Your task to perform on an android device: Open the calendar and show me this week's events? Image 0: 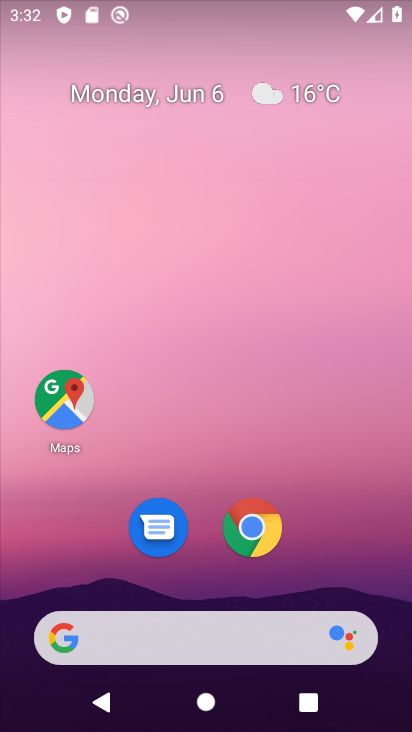
Step 0: click (123, 95)
Your task to perform on an android device: Open the calendar and show me this week's events? Image 1: 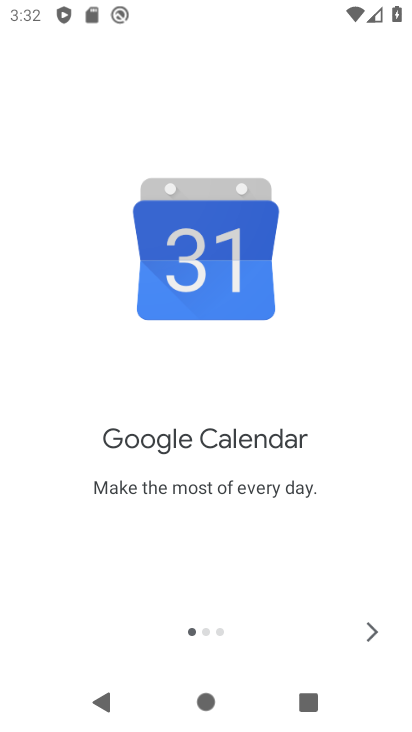
Step 1: click (371, 635)
Your task to perform on an android device: Open the calendar and show me this week's events? Image 2: 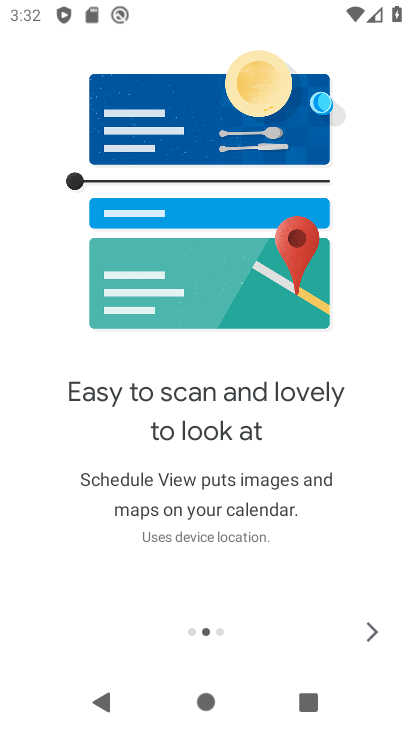
Step 2: click (371, 635)
Your task to perform on an android device: Open the calendar and show me this week's events? Image 3: 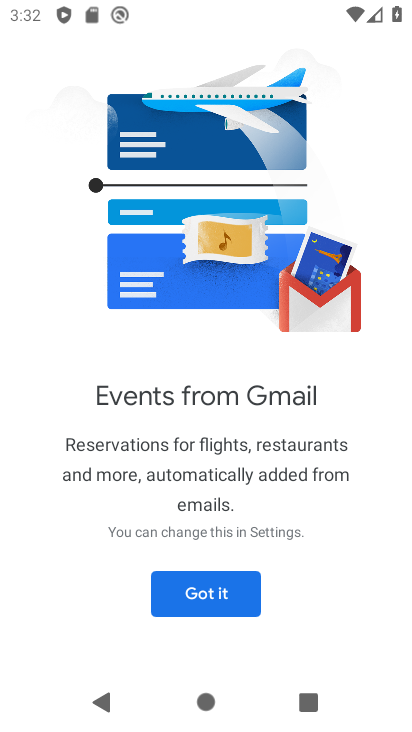
Step 3: click (218, 590)
Your task to perform on an android device: Open the calendar and show me this week's events? Image 4: 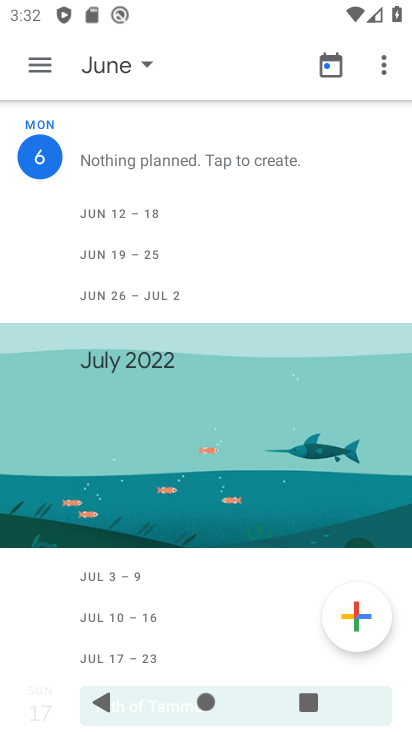
Step 4: click (45, 63)
Your task to perform on an android device: Open the calendar and show me this week's events? Image 5: 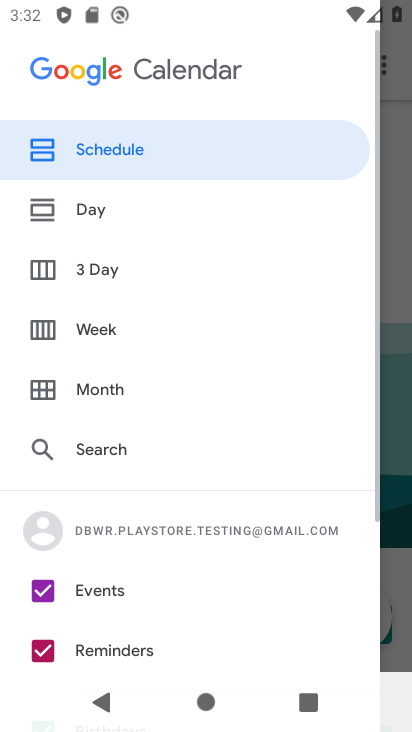
Step 5: click (107, 334)
Your task to perform on an android device: Open the calendar and show me this week's events? Image 6: 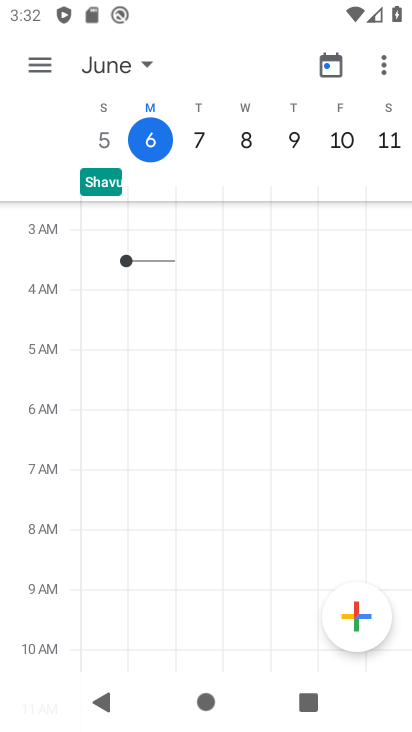
Step 6: drag from (230, 512) to (196, 247)
Your task to perform on an android device: Open the calendar and show me this week's events? Image 7: 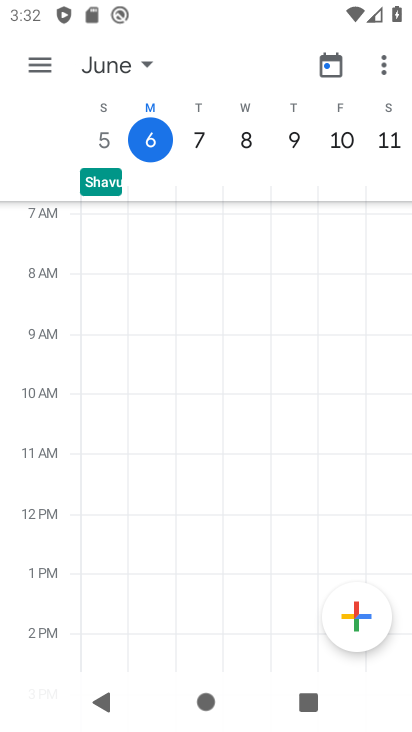
Step 7: drag from (200, 575) to (149, 241)
Your task to perform on an android device: Open the calendar and show me this week's events? Image 8: 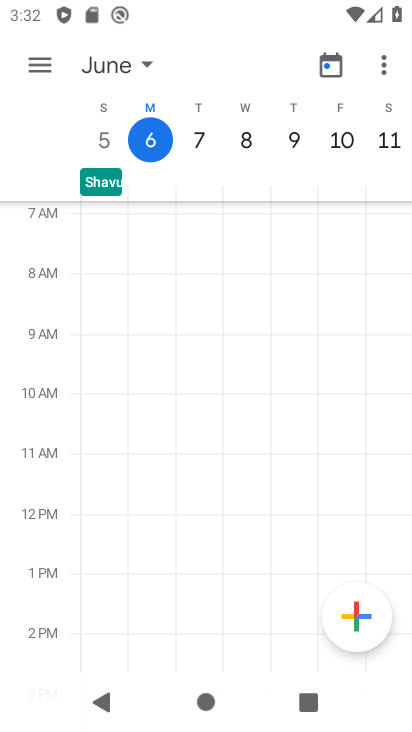
Step 8: drag from (219, 584) to (219, 352)
Your task to perform on an android device: Open the calendar and show me this week's events? Image 9: 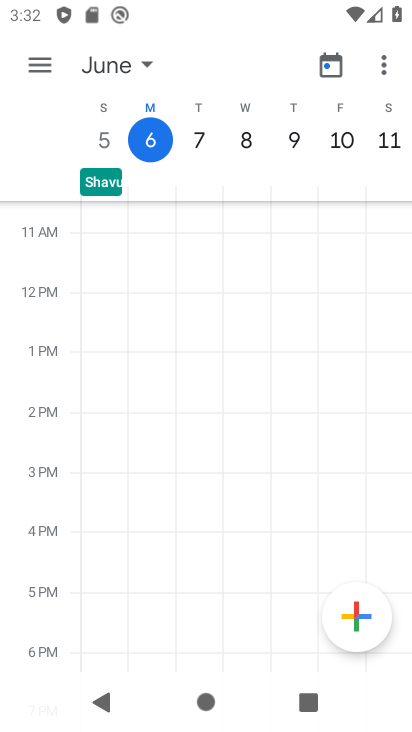
Step 9: drag from (255, 544) to (251, 134)
Your task to perform on an android device: Open the calendar and show me this week's events? Image 10: 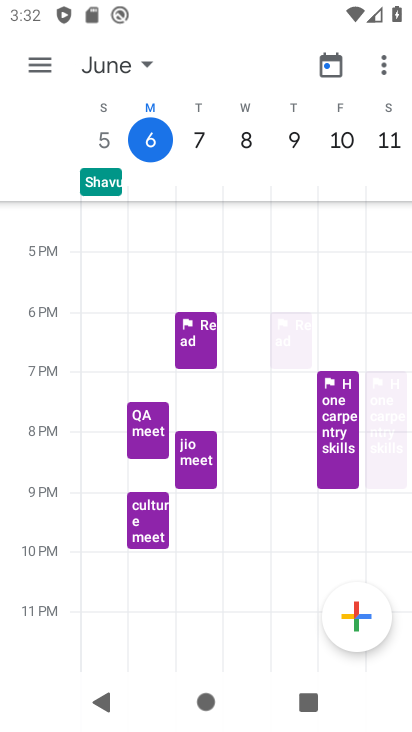
Step 10: click (36, 64)
Your task to perform on an android device: Open the calendar and show me this week's events? Image 11: 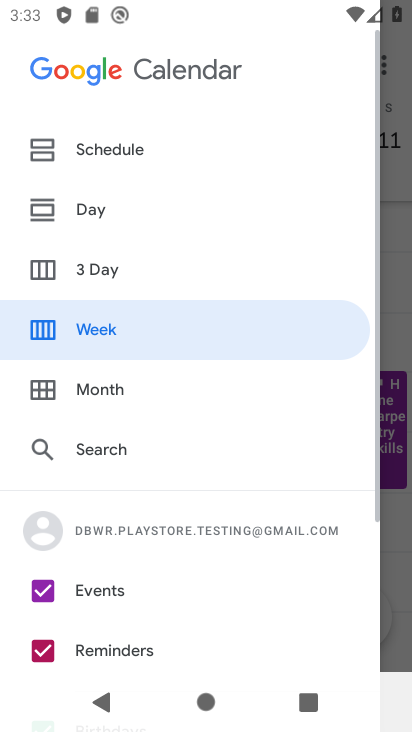
Step 11: drag from (154, 592) to (143, 367)
Your task to perform on an android device: Open the calendar and show me this week's events? Image 12: 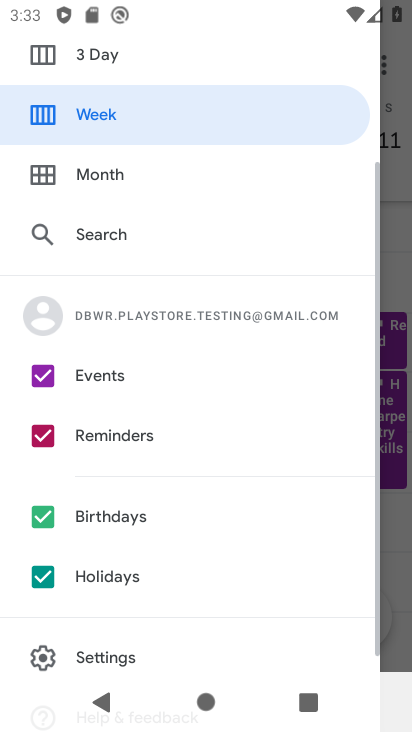
Step 12: click (44, 579)
Your task to perform on an android device: Open the calendar and show me this week's events? Image 13: 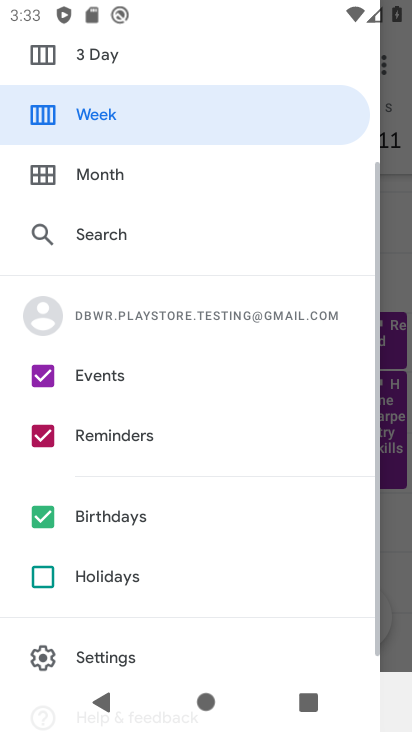
Step 13: click (43, 523)
Your task to perform on an android device: Open the calendar and show me this week's events? Image 14: 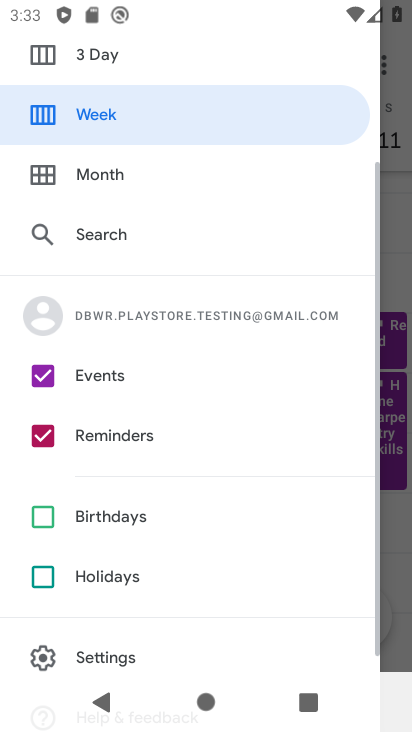
Step 14: click (45, 441)
Your task to perform on an android device: Open the calendar and show me this week's events? Image 15: 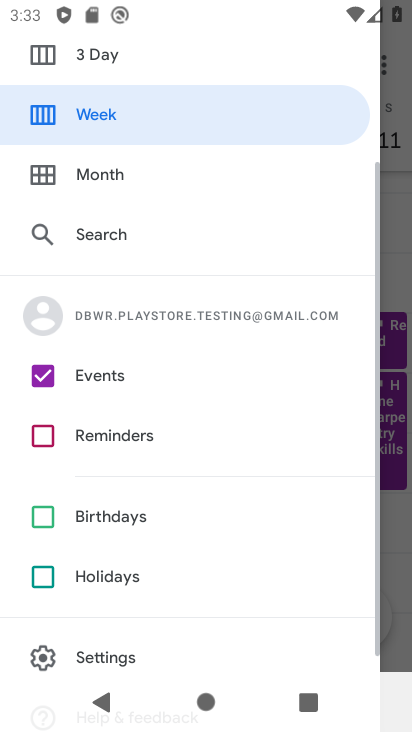
Step 15: click (395, 524)
Your task to perform on an android device: Open the calendar and show me this week's events? Image 16: 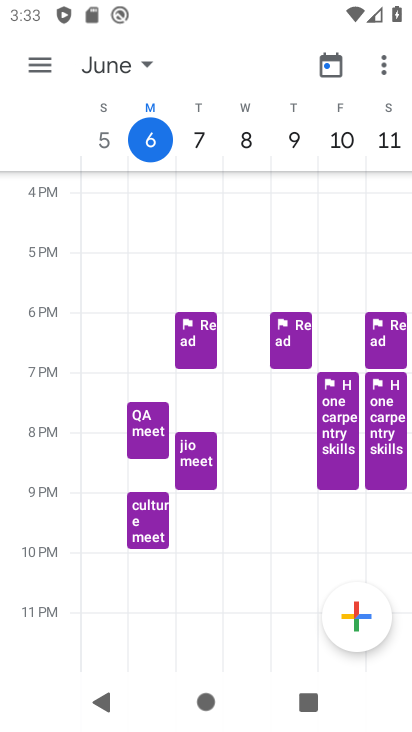
Step 16: task complete